Your task to perform on an android device: turn on airplane mode Image 0: 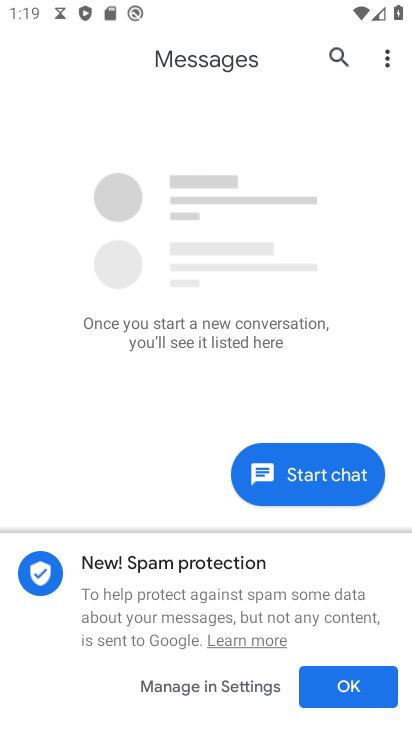
Step 0: press home button
Your task to perform on an android device: turn on airplane mode Image 1: 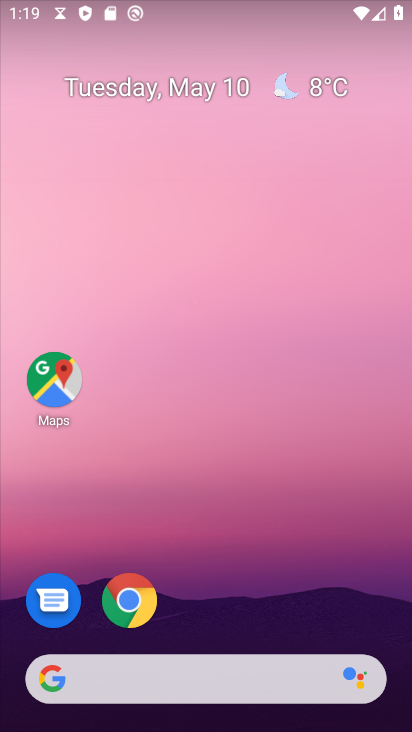
Step 1: drag from (214, 615) to (243, 83)
Your task to perform on an android device: turn on airplane mode Image 2: 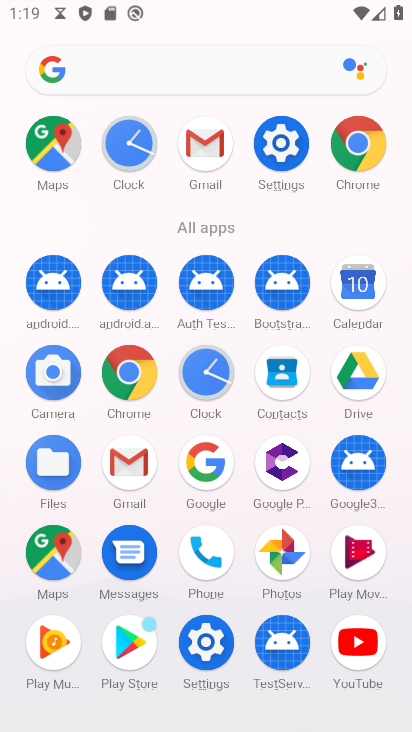
Step 2: drag from (290, 2) to (283, 589)
Your task to perform on an android device: turn on airplane mode Image 3: 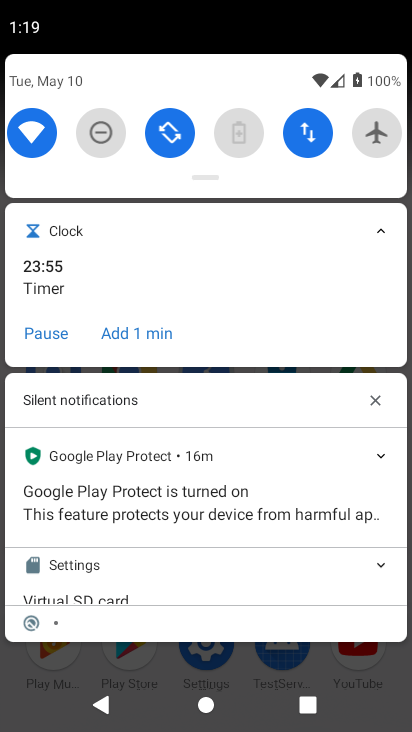
Step 3: click (379, 130)
Your task to perform on an android device: turn on airplane mode Image 4: 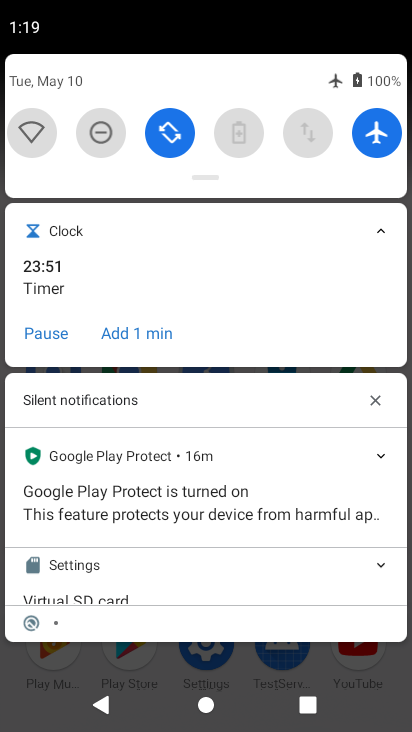
Step 4: task complete